Your task to perform on an android device: open sync settings in chrome Image 0: 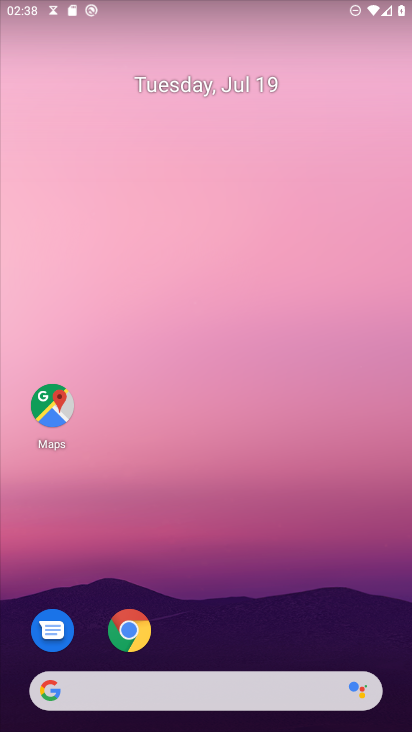
Step 0: click (133, 628)
Your task to perform on an android device: open sync settings in chrome Image 1: 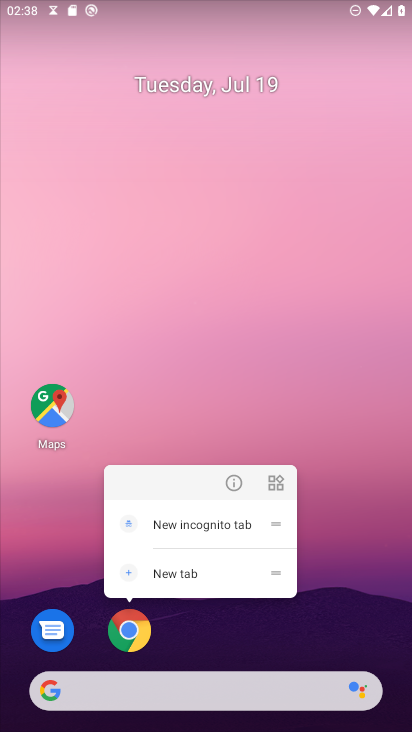
Step 1: click (133, 628)
Your task to perform on an android device: open sync settings in chrome Image 2: 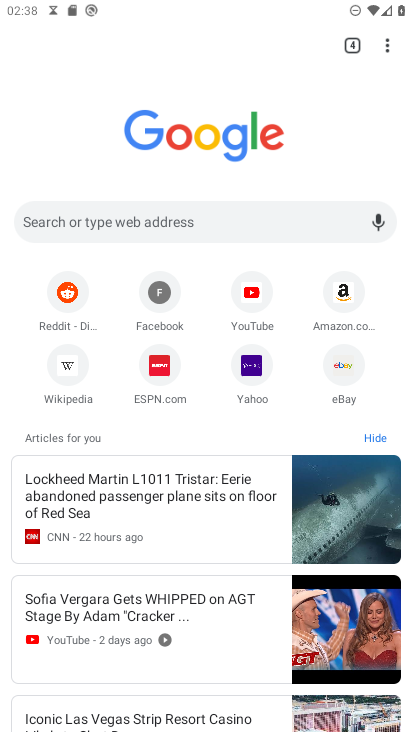
Step 2: drag from (388, 39) to (262, 386)
Your task to perform on an android device: open sync settings in chrome Image 3: 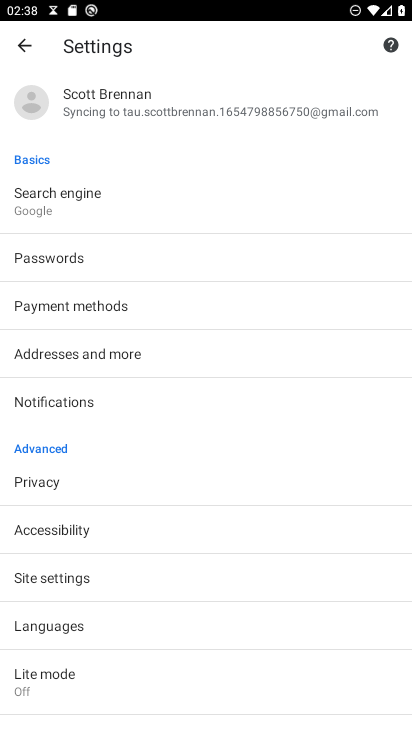
Step 3: click (149, 108)
Your task to perform on an android device: open sync settings in chrome Image 4: 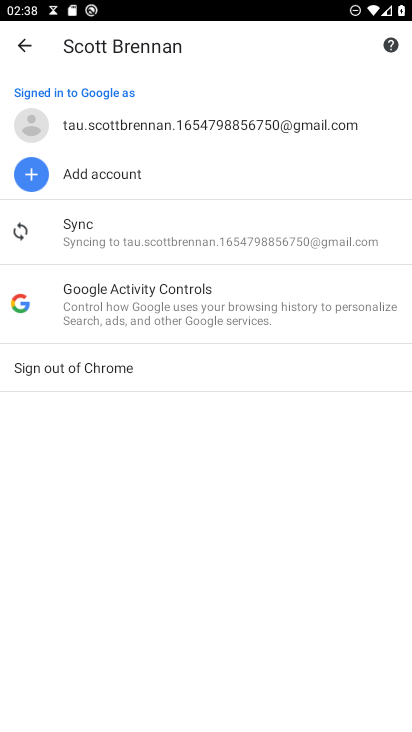
Step 4: click (141, 228)
Your task to perform on an android device: open sync settings in chrome Image 5: 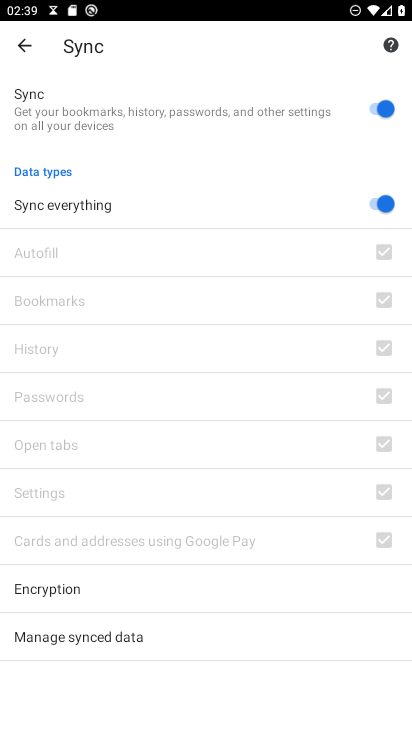
Step 5: task complete